Your task to perform on an android device: When is my next appointment? Image 0: 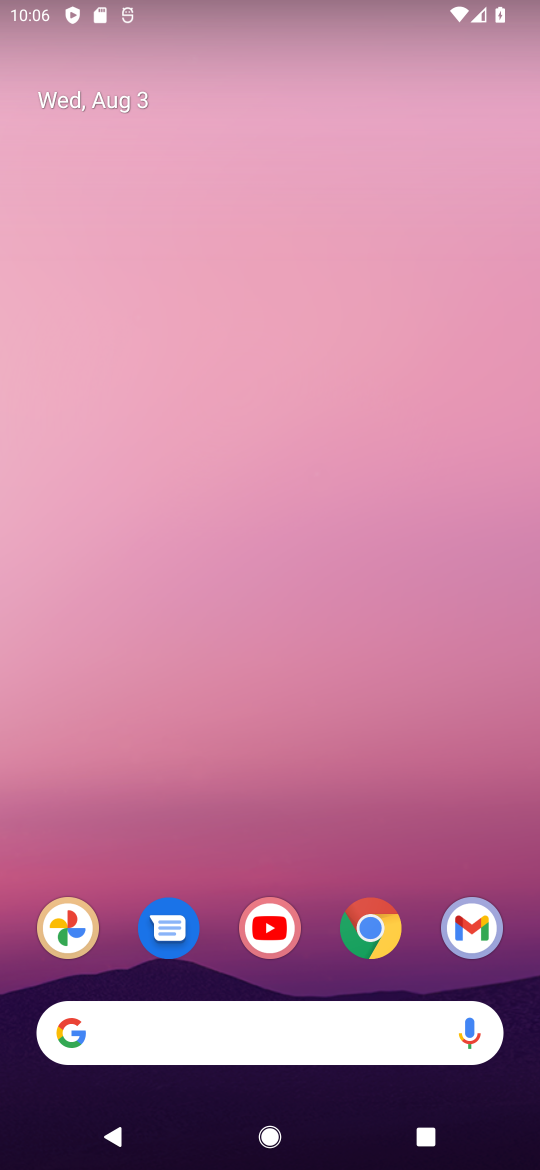
Step 0: drag from (400, 825) to (253, 12)
Your task to perform on an android device: When is my next appointment? Image 1: 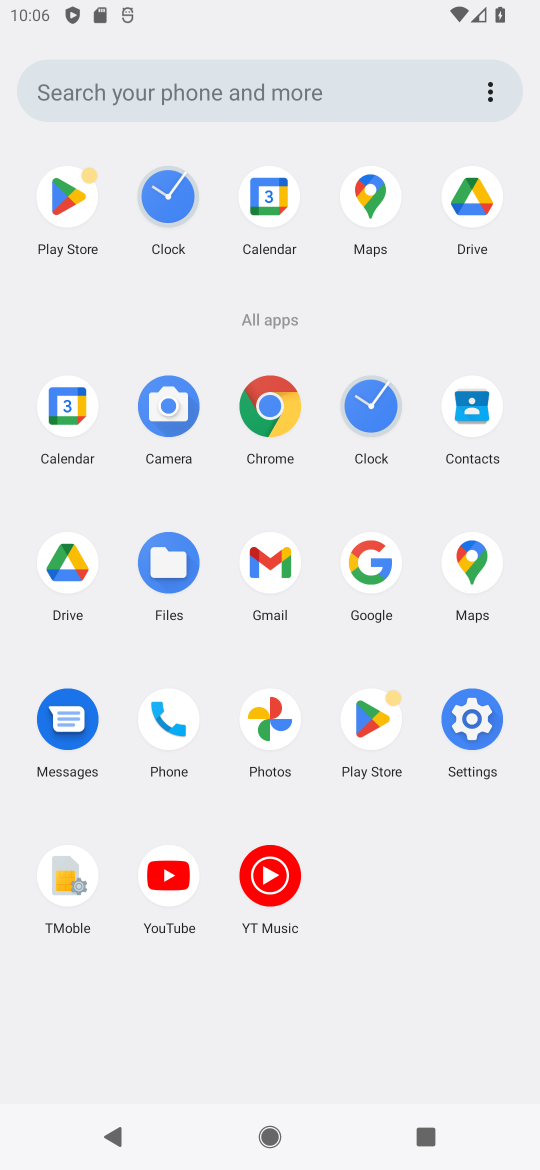
Step 1: drag from (423, 948) to (318, 69)
Your task to perform on an android device: When is my next appointment? Image 2: 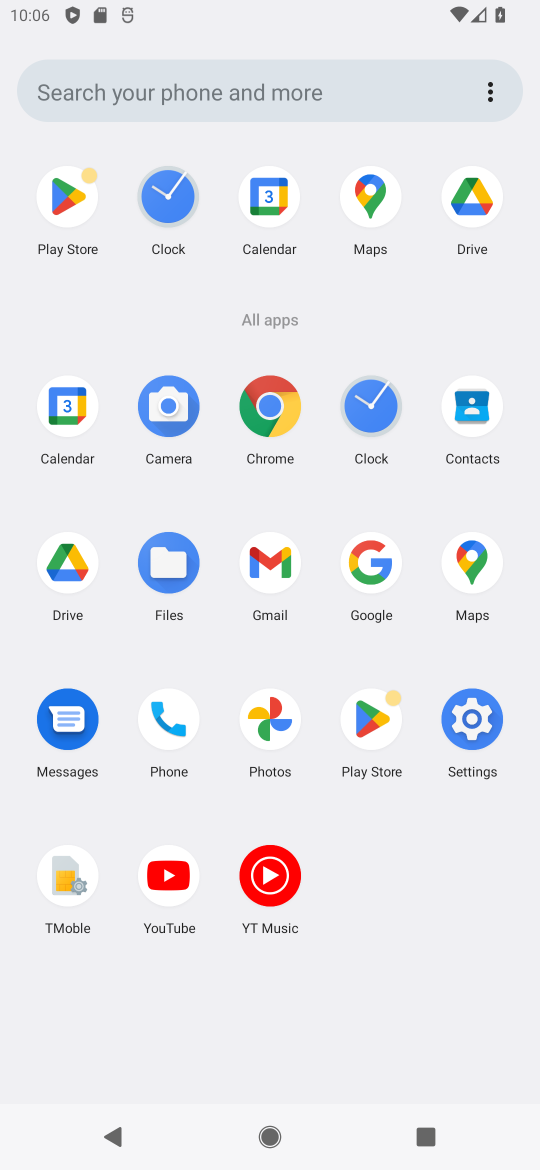
Step 2: click (274, 214)
Your task to perform on an android device: When is my next appointment? Image 3: 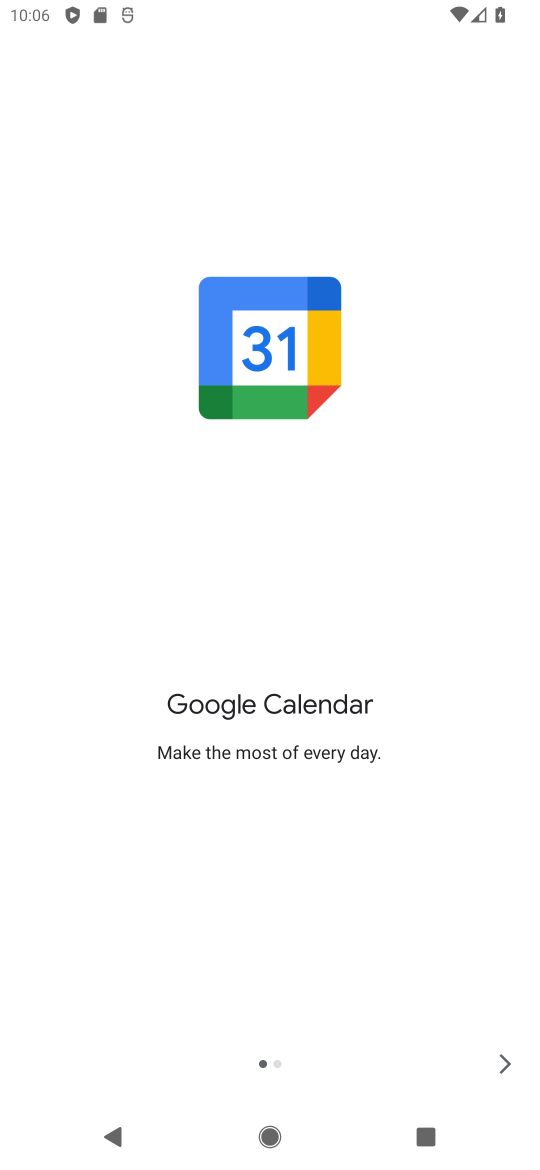
Step 3: click (504, 1077)
Your task to perform on an android device: When is my next appointment? Image 4: 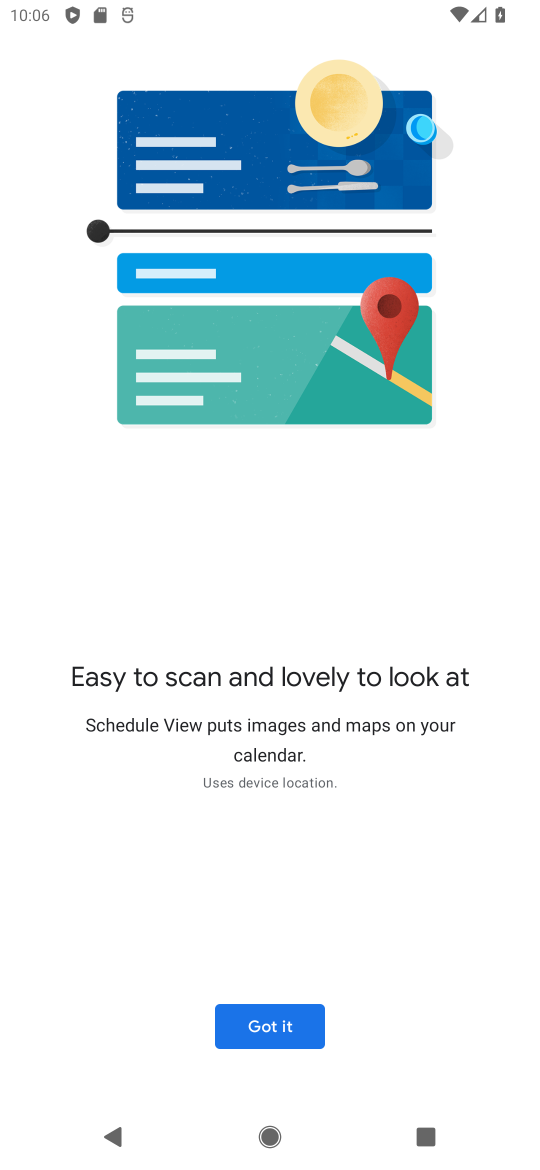
Step 4: click (498, 1079)
Your task to perform on an android device: When is my next appointment? Image 5: 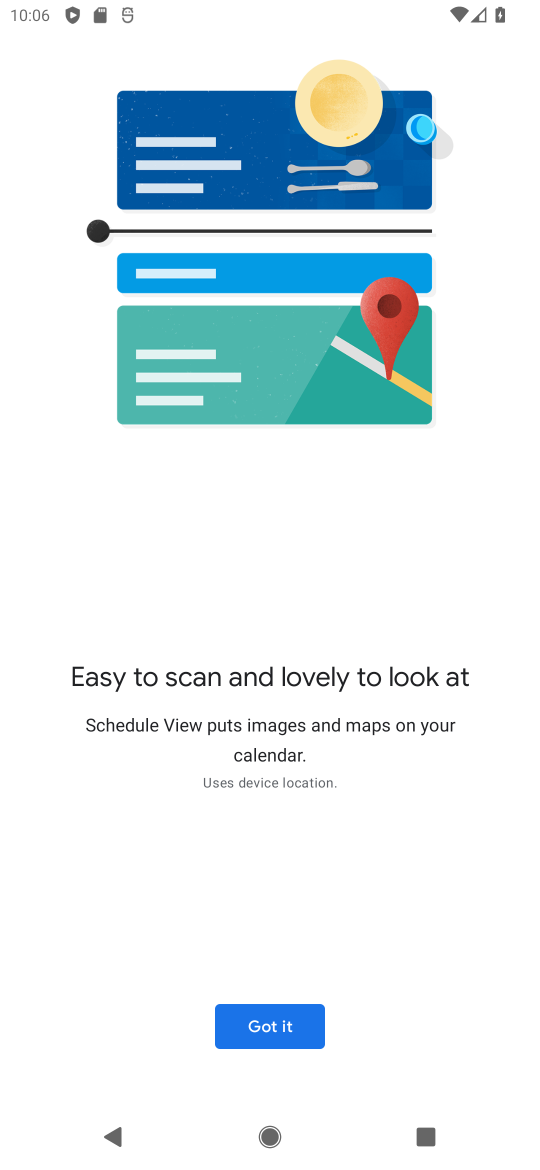
Step 5: click (271, 1031)
Your task to perform on an android device: When is my next appointment? Image 6: 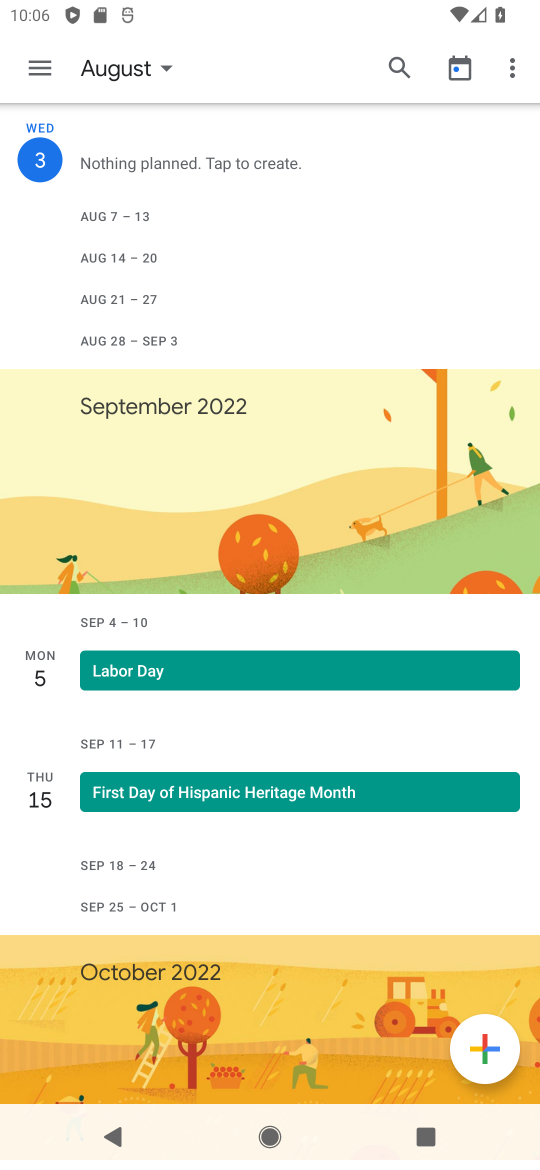
Step 6: task complete